Your task to perform on an android device: Open Google Maps Image 0: 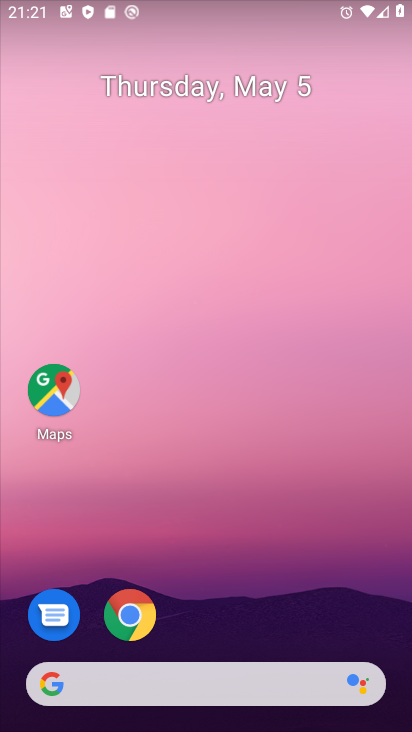
Step 0: click (67, 387)
Your task to perform on an android device: Open Google Maps Image 1: 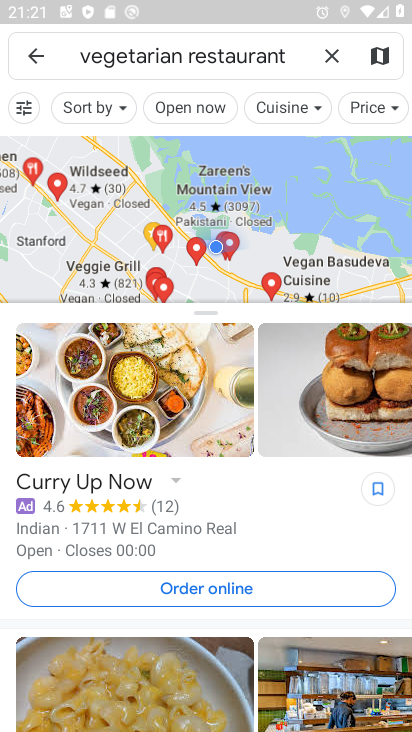
Step 1: click (41, 68)
Your task to perform on an android device: Open Google Maps Image 2: 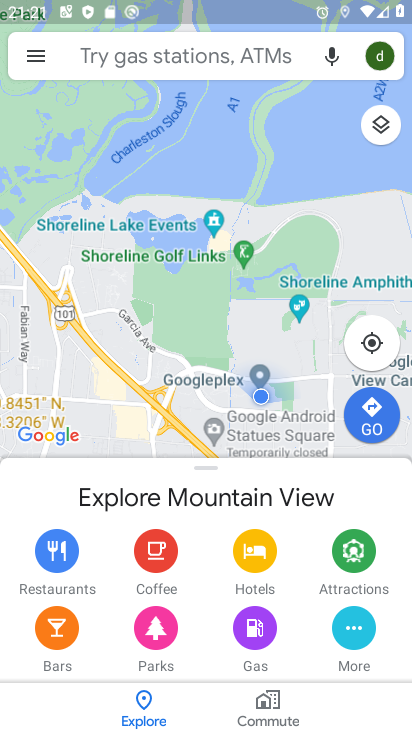
Step 2: task complete